Your task to perform on an android device: Go to Google Image 0: 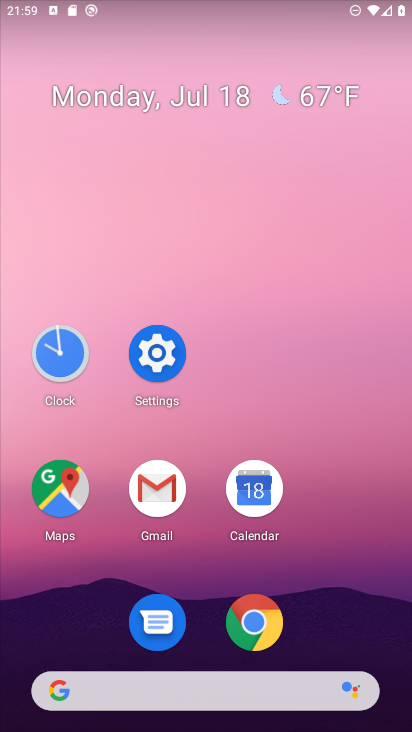
Step 0: drag from (388, 688) to (250, 106)
Your task to perform on an android device: Go to Google Image 1: 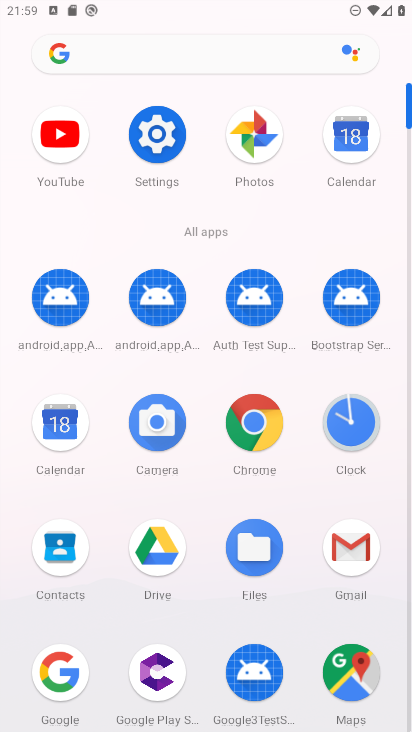
Step 1: drag from (196, 622) to (196, 172)
Your task to perform on an android device: Go to Google Image 2: 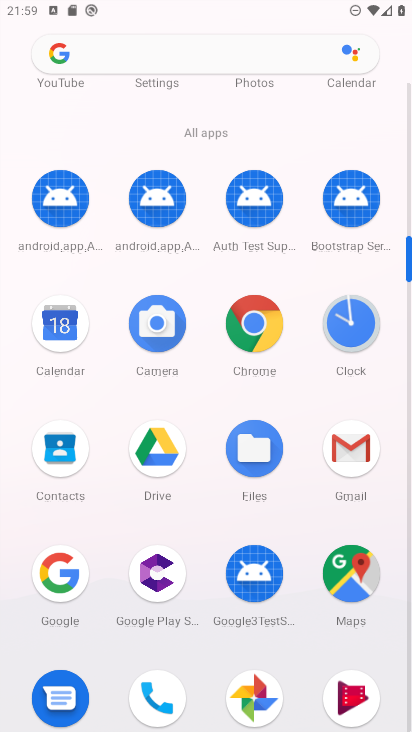
Step 2: drag from (209, 708) to (207, 251)
Your task to perform on an android device: Go to Google Image 3: 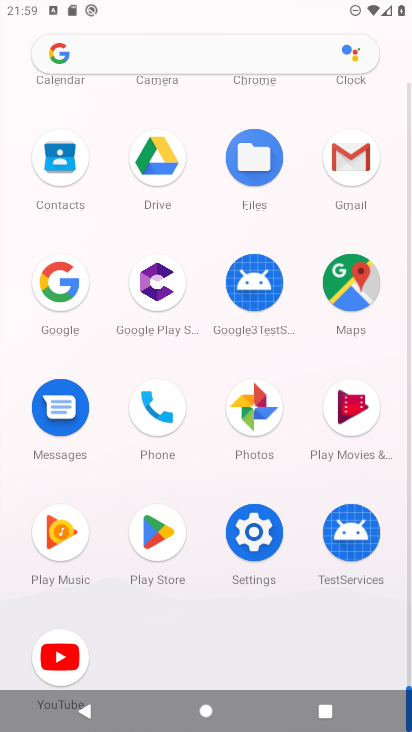
Step 3: click (43, 280)
Your task to perform on an android device: Go to Google Image 4: 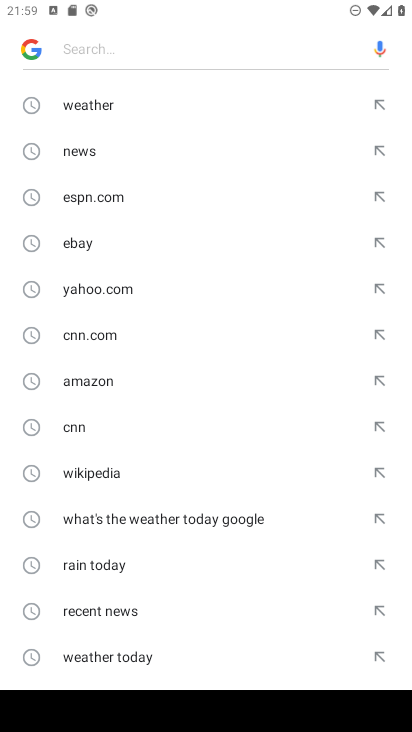
Step 4: task complete